Your task to perform on an android device: Go to battery settings Image 0: 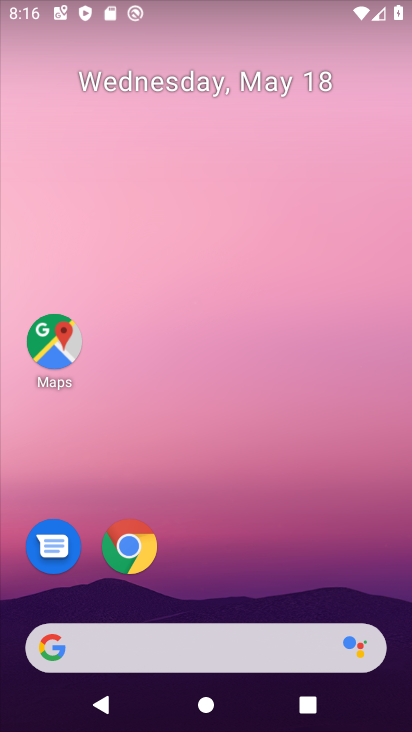
Step 0: drag from (247, 667) to (249, 152)
Your task to perform on an android device: Go to battery settings Image 1: 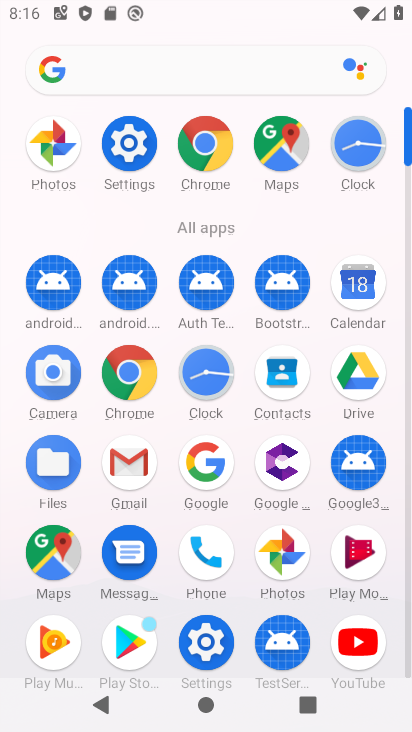
Step 1: click (138, 151)
Your task to perform on an android device: Go to battery settings Image 2: 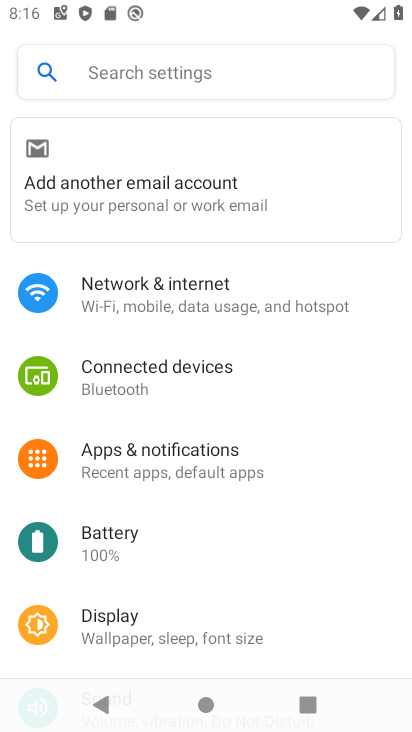
Step 2: click (124, 79)
Your task to perform on an android device: Go to battery settings Image 3: 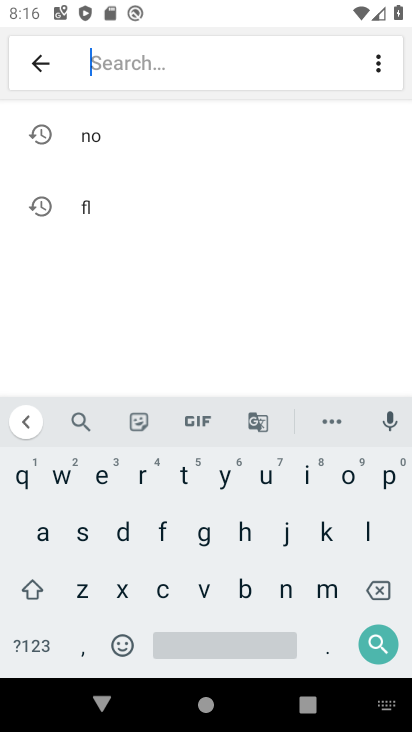
Step 3: click (40, 59)
Your task to perform on an android device: Go to battery settings Image 4: 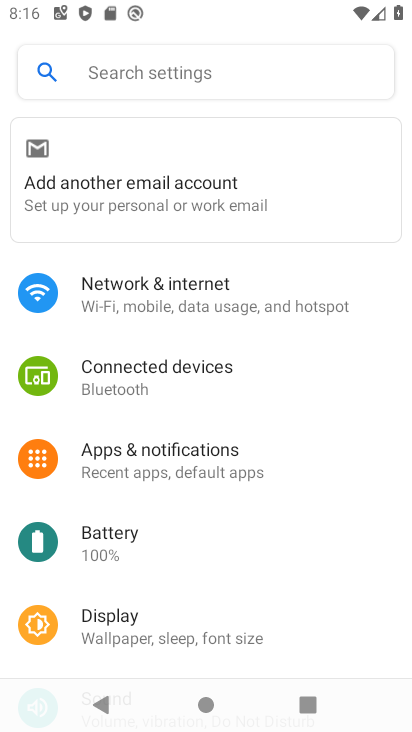
Step 4: click (162, 547)
Your task to perform on an android device: Go to battery settings Image 5: 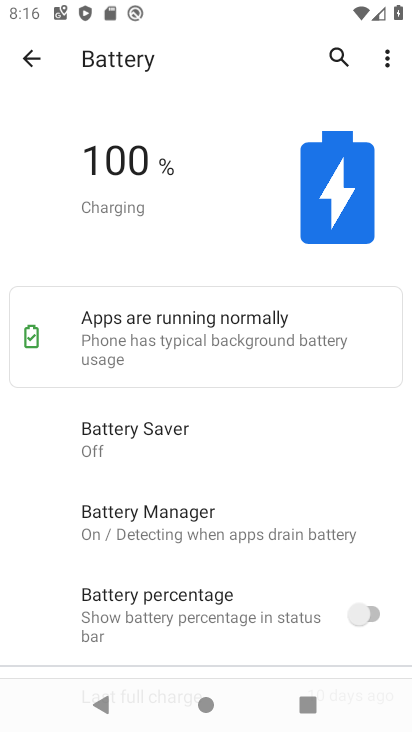
Step 5: task complete